Your task to perform on an android device: Open Google Image 0: 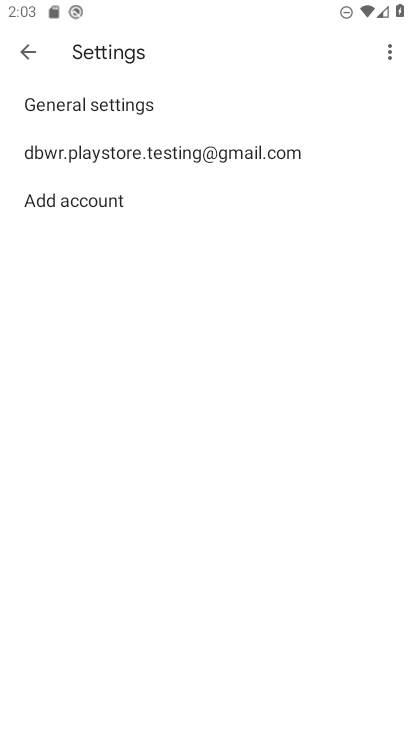
Step 0: press home button
Your task to perform on an android device: Open Google Image 1: 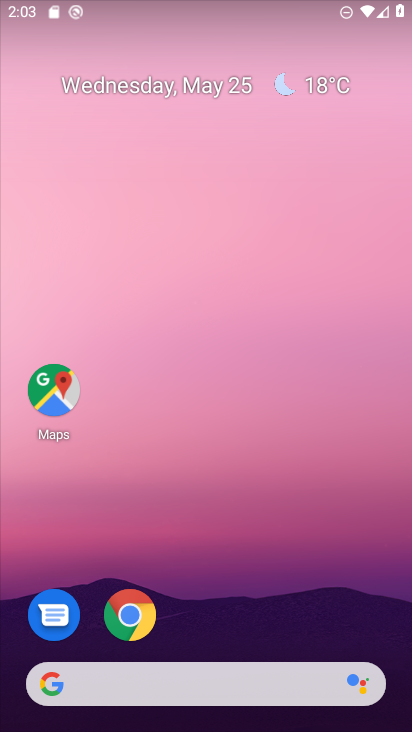
Step 1: click (234, 685)
Your task to perform on an android device: Open Google Image 2: 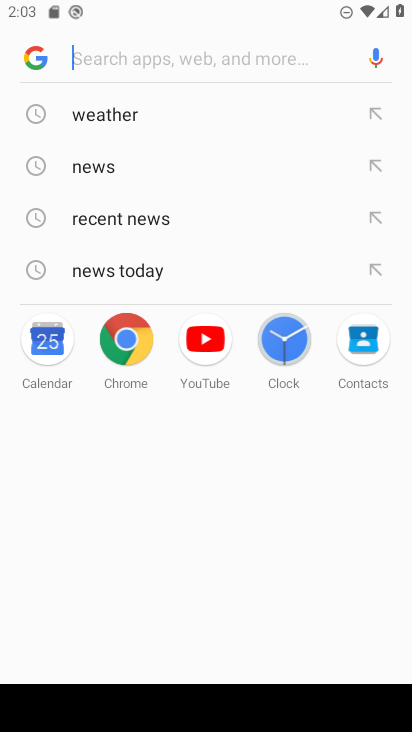
Step 2: click (35, 53)
Your task to perform on an android device: Open Google Image 3: 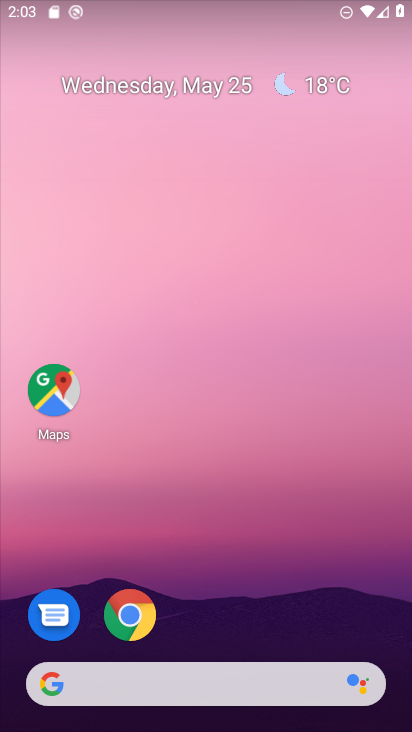
Step 3: task complete